Your task to perform on an android device: Show the shopping cart on ebay.com. Image 0: 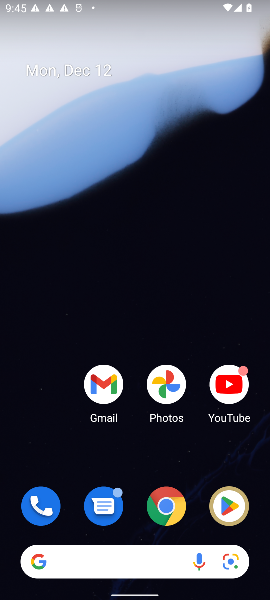
Step 0: click (161, 552)
Your task to perform on an android device: Show the shopping cart on ebay.com. Image 1: 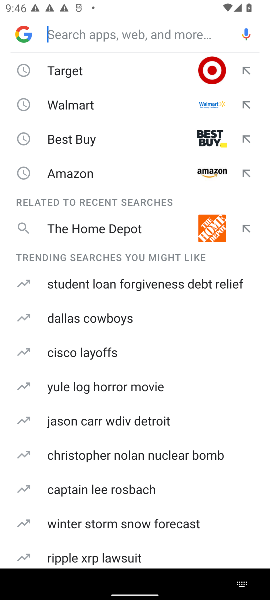
Step 1: type "ebay.com"
Your task to perform on an android device: Show the shopping cart on ebay.com. Image 2: 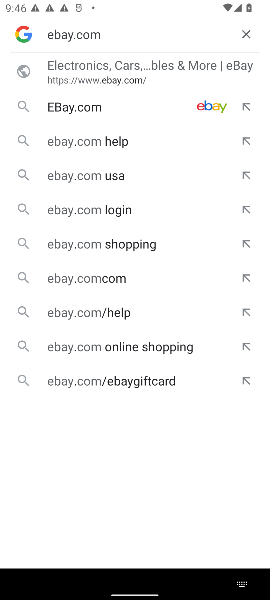
Step 2: click (106, 75)
Your task to perform on an android device: Show the shopping cart on ebay.com. Image 3: 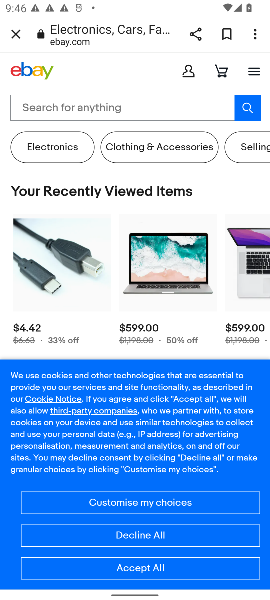
Step 3: click (111, 108)
Your task to perform on an android device: Show the shopping cart on ebay.com. Image 4: 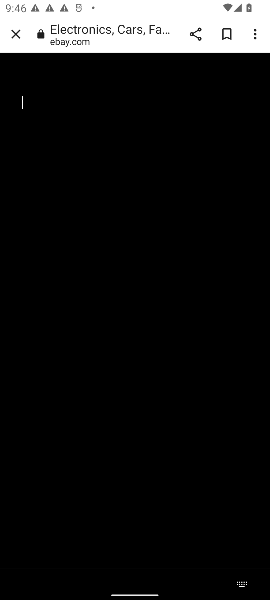
Step 4: click (260, 70)
Your task to perform on an android device: Show the shopping cart on ebay.com. Image 5: 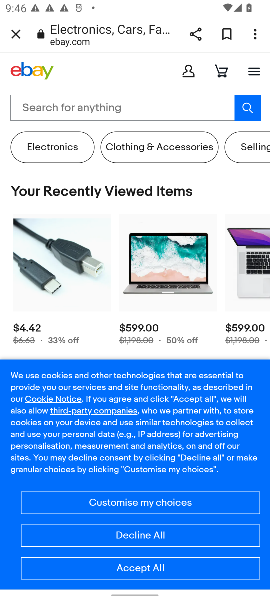
Step 5: click (260, 70)
Your task to perform on an android device: Show the shopping cart on ebay.com. Image 6: 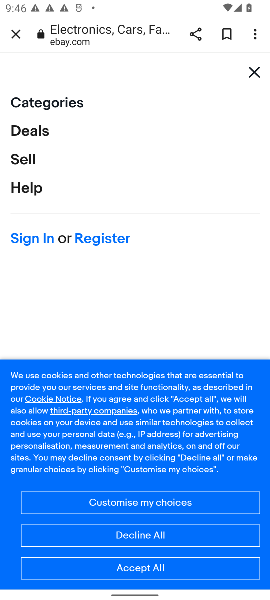
Step 6: click (246, 81)
Your task to perform on an android device: Show the shopping cart on ebay.com. Image 7: 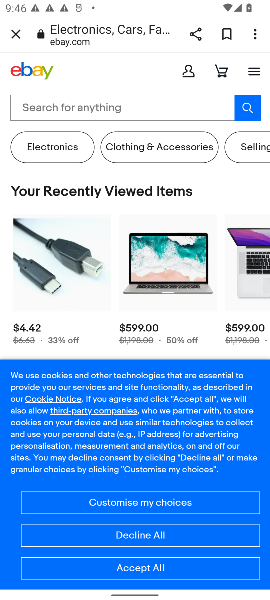
Step 7: click (217, 76)
Your task to perform on an android device: Show the shopping cart on ebay.com. Image 8: 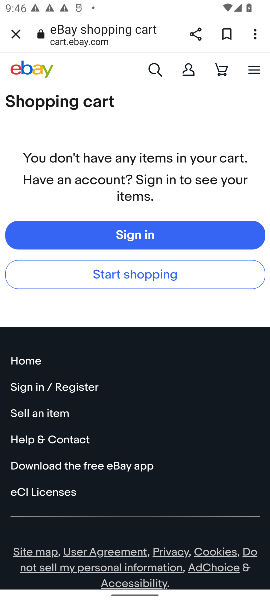
Step 8: task complete